Your task to perform on an android device: change the upload size in google photos Image 0: 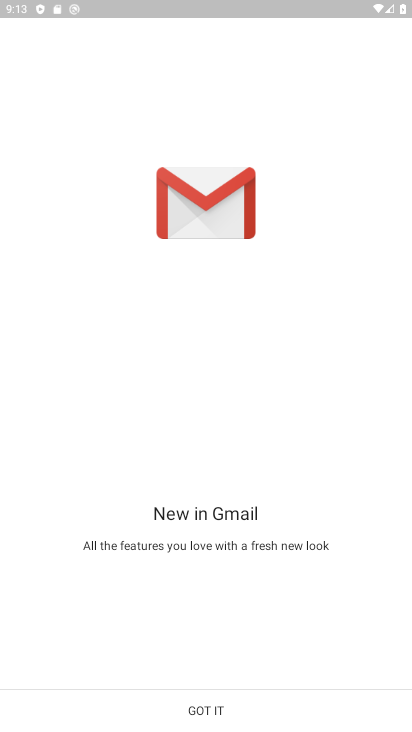
Step 0: press home button
Your task to perform on an android device: change the upload size in google photos Image 1: 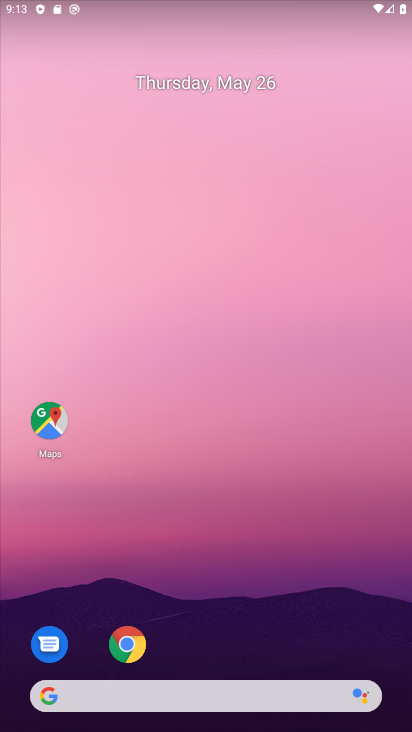
Step 1: drag from (206, 647) to (277, 284)
Your task to perform on an android device: change the upload size in google photos Image 2: 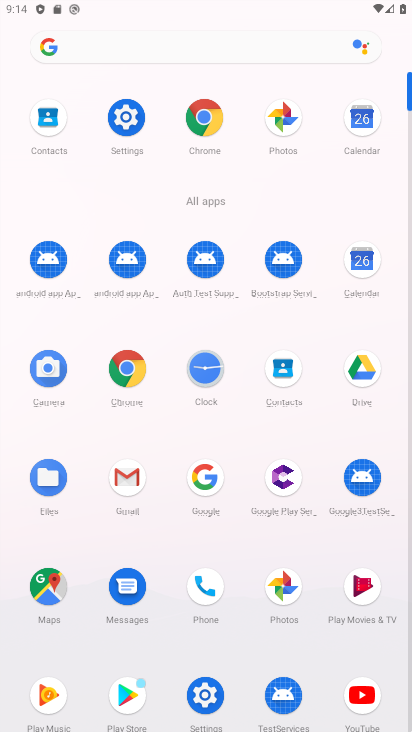
Step 2: click (284, 592)
Your task to perform on an android device: change the upload size in google photos Image 3: 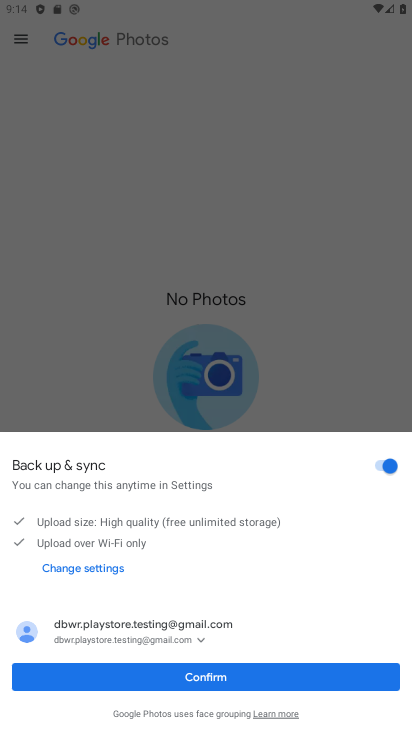
Step 3: click (274, 676)
Your task to perform on an android device: change the upload size in google photos Image 4: 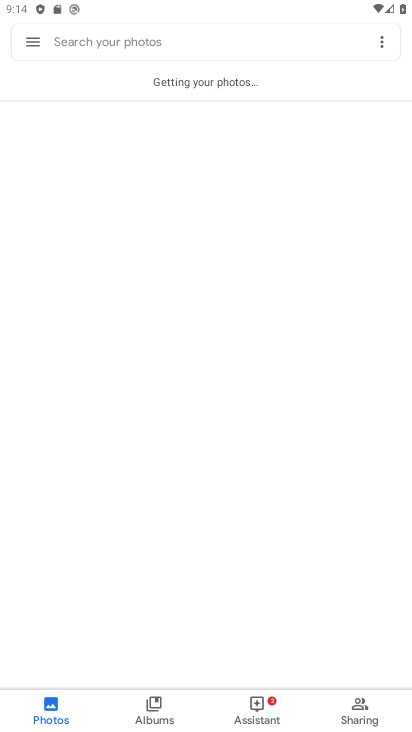
Step 4: click (34, 42)
Your task to perform on an android device: change the upload size in google photos Image 5: 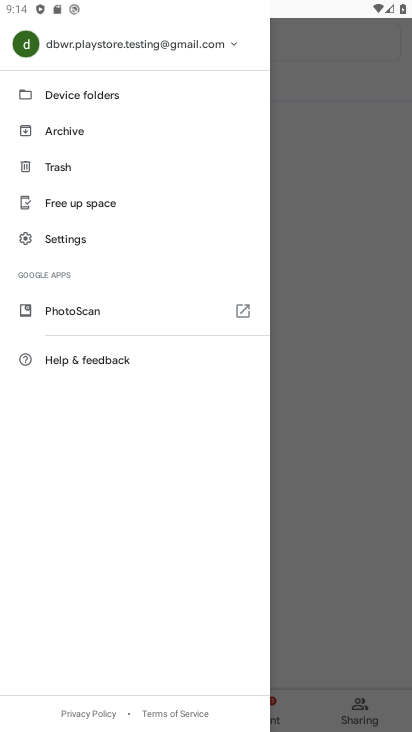
Step 5: click (107, 244)
Your task to perform on an android device: change the upload size in google photos Image 6: 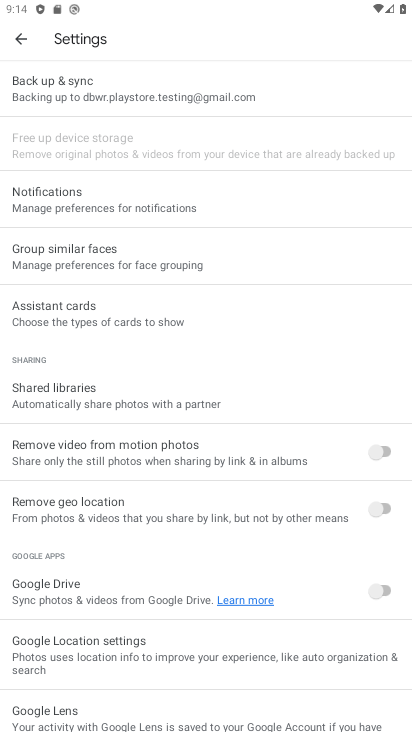
Step 6: click (94, 93)
Your task to perform on an android device: change the upload size in google photos Image 7: 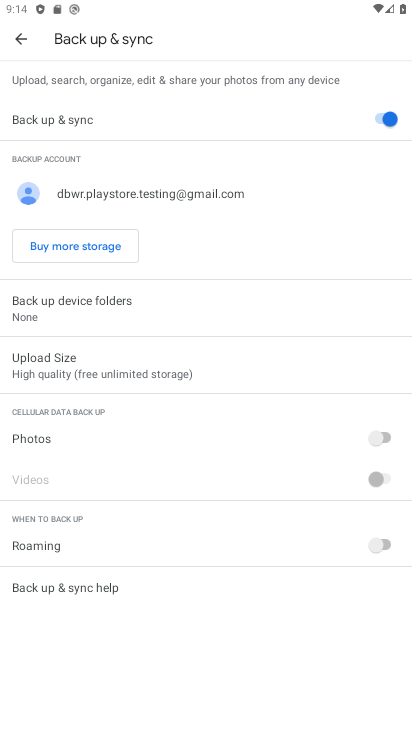
Step 7: click (58, 360)
Your task to perform on an android device: change the upload size in google photos Image 8: 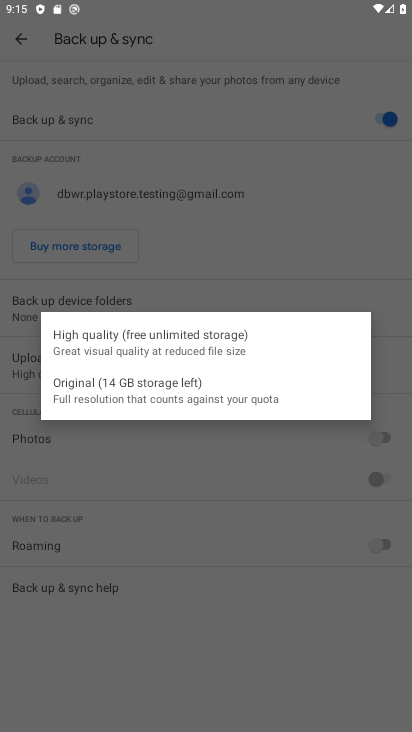
Step 8: click (234, 344)
Your task to perform on an android device: change the upload size in google photos Image 9: 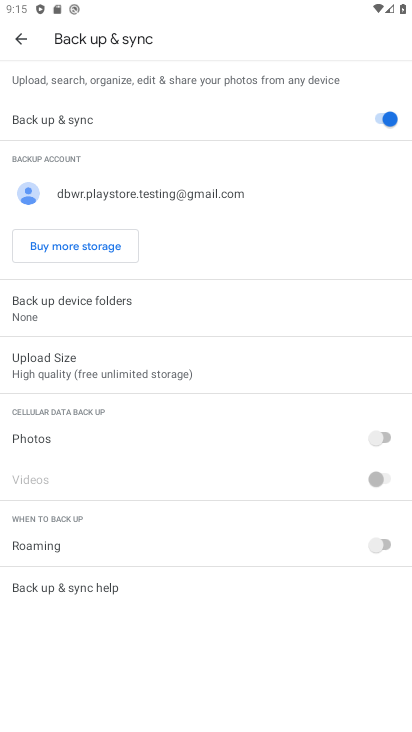
Step 9: task complete